Your task to perform on an android device: Go to Android settings Image 0: 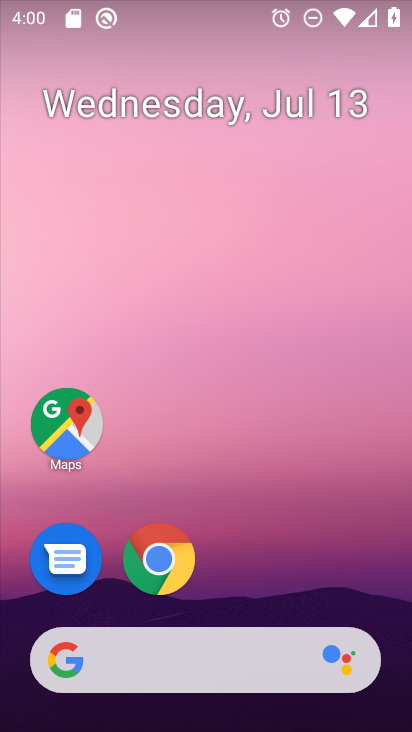
Step 0: drag from (365, 577) to (350, 173)
Your task to perform on an android device: Go to Android settings Image 1: 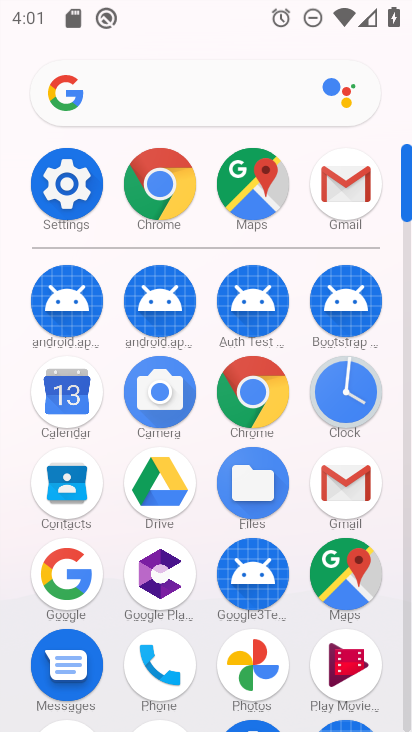
Step 1: click (73, 196)
Your task to perform on an android device: Go to Android settings Image 2: 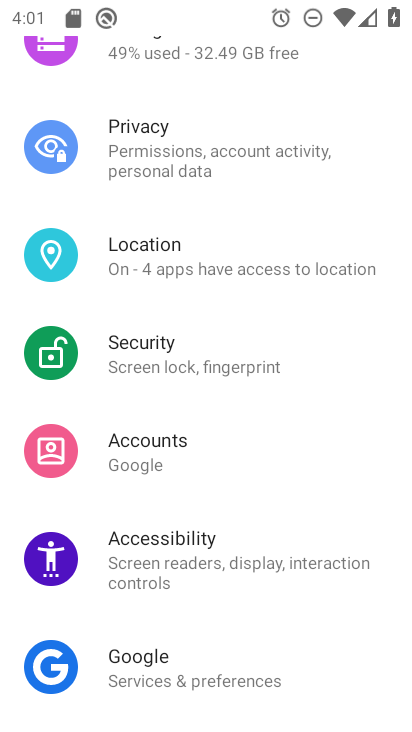
Step 2: drag from (346, 319) to (346, 415)
Your task to perform on an android device: Go to Android settings Image 3: 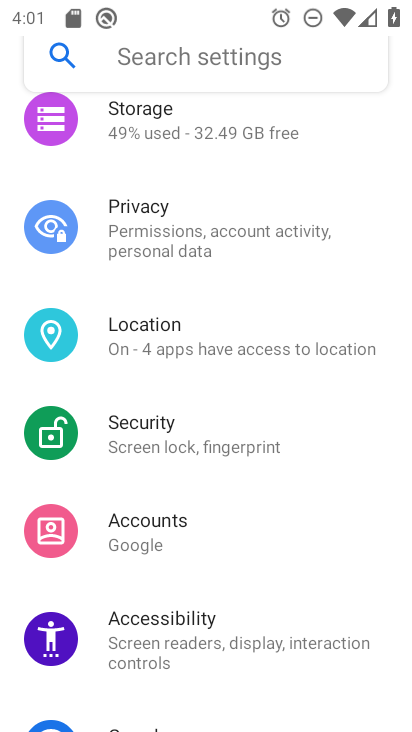
Step 3: drag from (355, 319) to (355, 402)
Your task to perform on an android device: Go to Android settings Image 4: 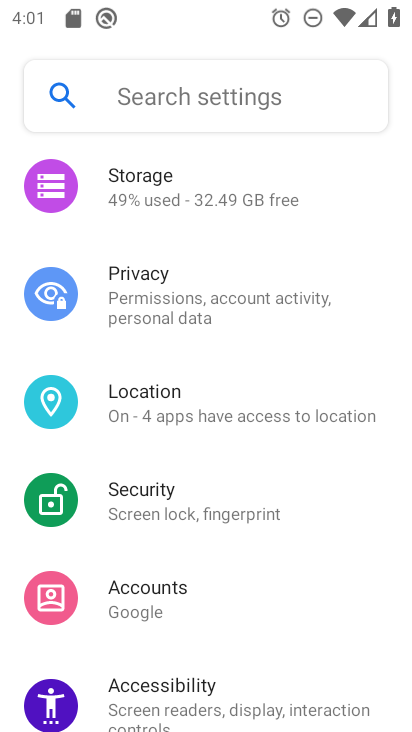
Step 4: drag from (355, 305) to (348, 395)
Your task to perform on an android device: Go to Android settings Image 5: 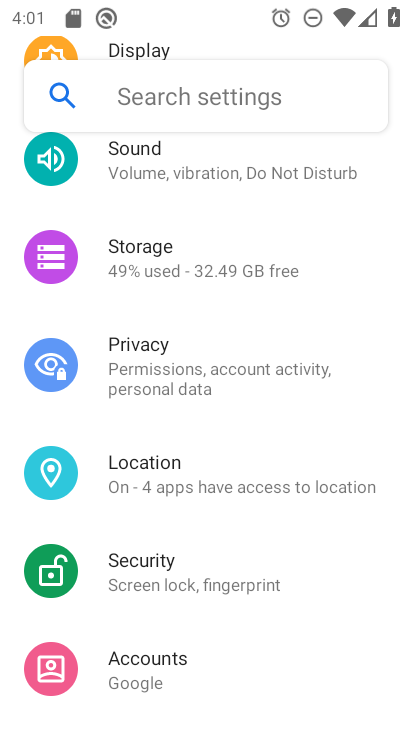
Step 5: drag from (355, 293) to (355, 392)
Your task to perform on an android device: Go to Android settings Image 6: 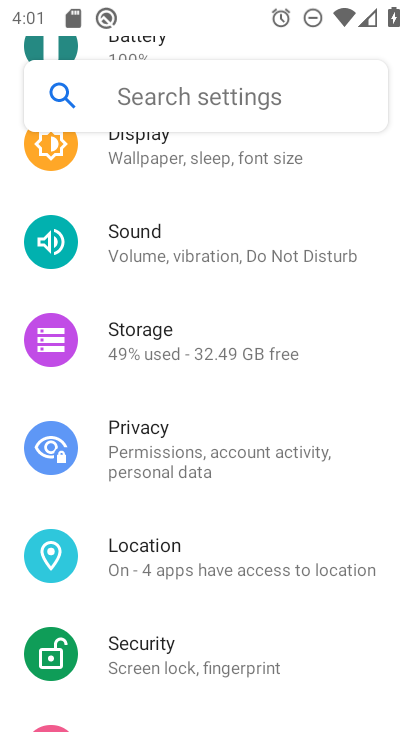
Step 6: drag from (367, 293) to (363, 388)
Your task to perform on an android device: Go to Android settings Image 7: 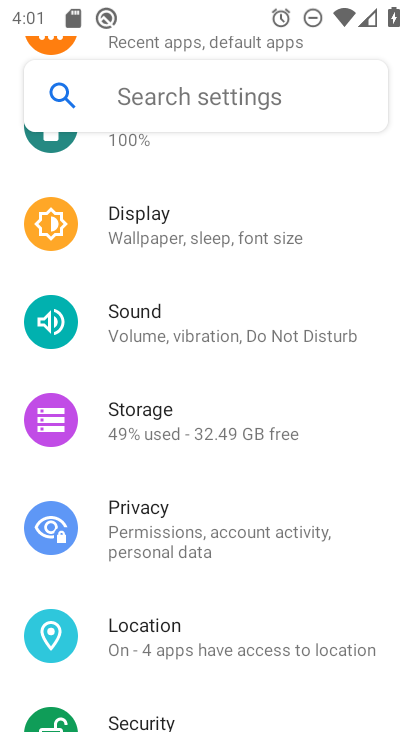
Step 7: drag from (363, 304) to (361, 412)
Your task to perform on an android device: Go to Android settings Image 8: 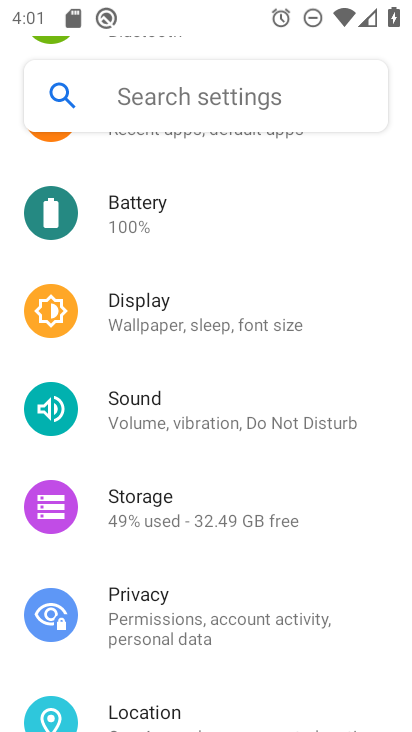
Step 8: drag from (371, 303) to (357, 401)
Your task to perform on an android device: Go to Android settings Image 9: 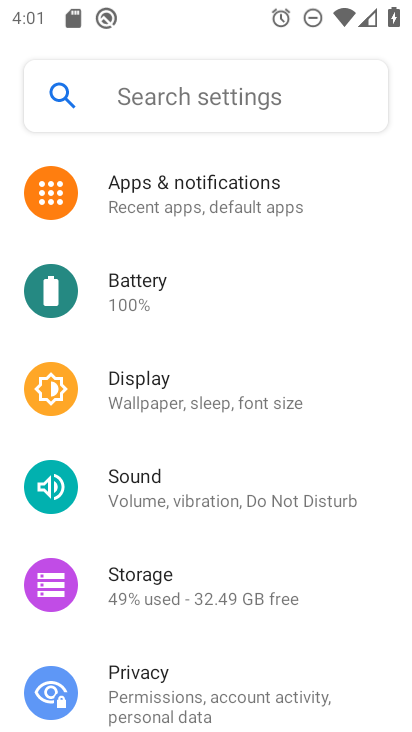
Step 9: drag from (355, 297) to (354, 421)
Your task to perform on an android device: Go to Android settings Image 10: 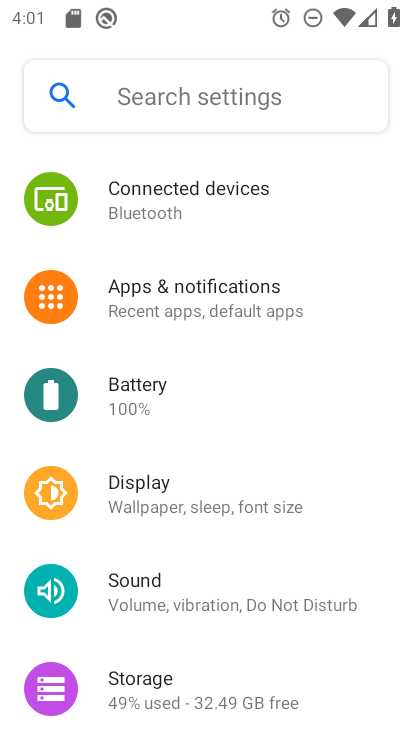
Step 10: drag from (355, 269) to (342, 408)
Your task to perform on an android device: Go to Android settings Image 11: 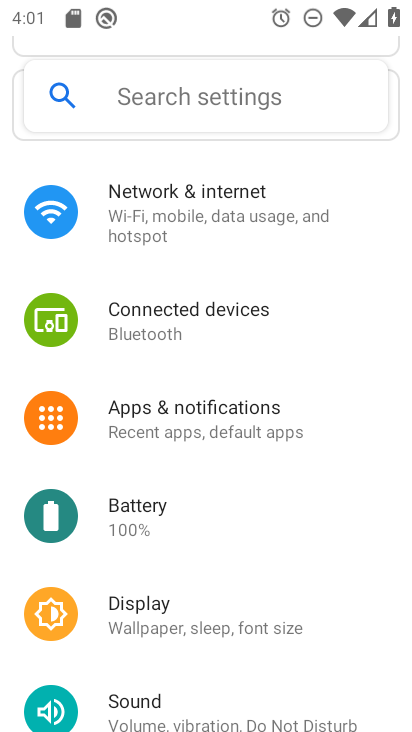
Step 11: drag from (355, 287) to (340, 417)
Your task to perform on an android device: Go to Android settings Image 12: 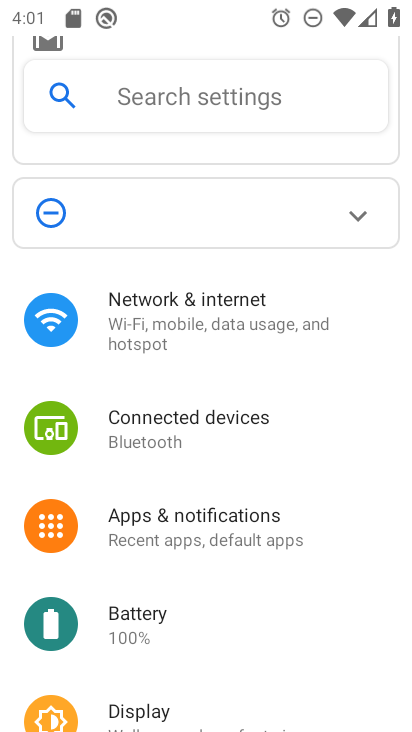
Step 12: drag from (336, 460) to (344, 388)
Your task to perform on an android device: Go to Android settings Image 13: 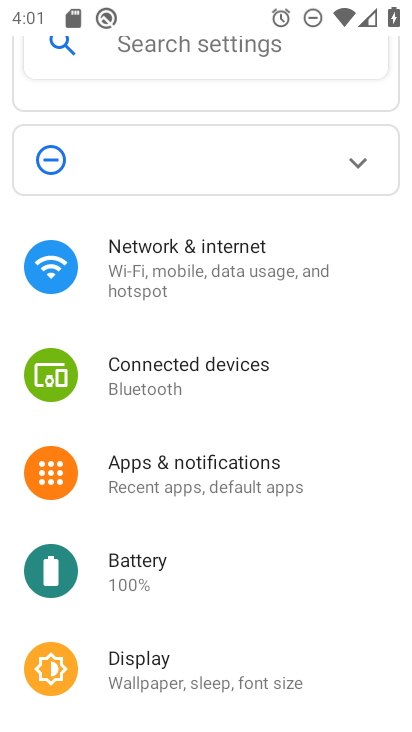
Step 13: drag from (342, 494) to (347, 413)
Your task to perform on an android device: Go to Android settings Image 14: 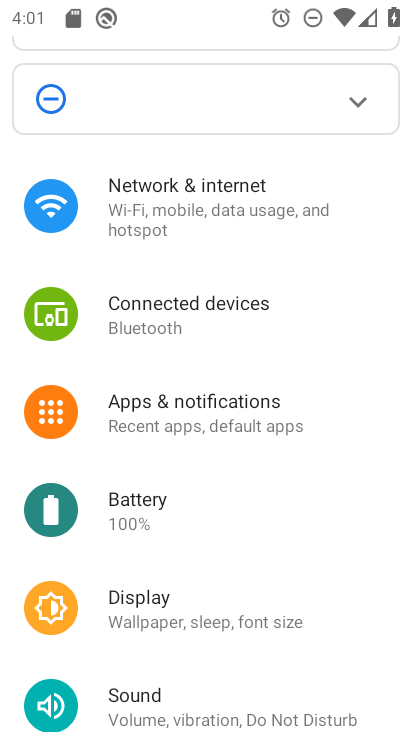
Step 14: drag from (335, 508) to (343, 412)
Your task to perform on an android device: Go to Android settings Image 15: 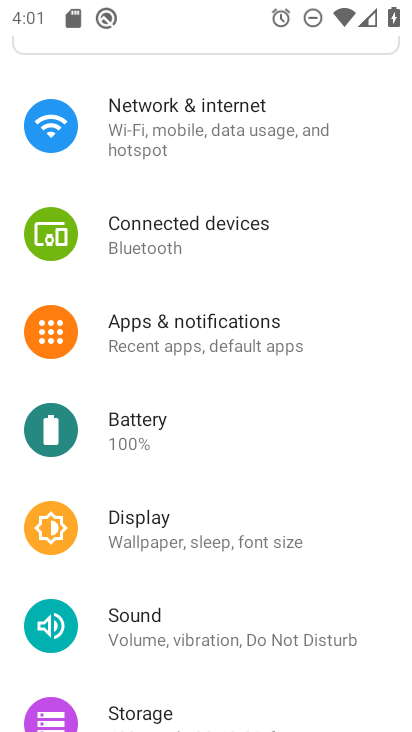
Step 15: drag from (350, 499) to (358, 402)
Your task to perform on an android device: Go to Android settings Image 16: 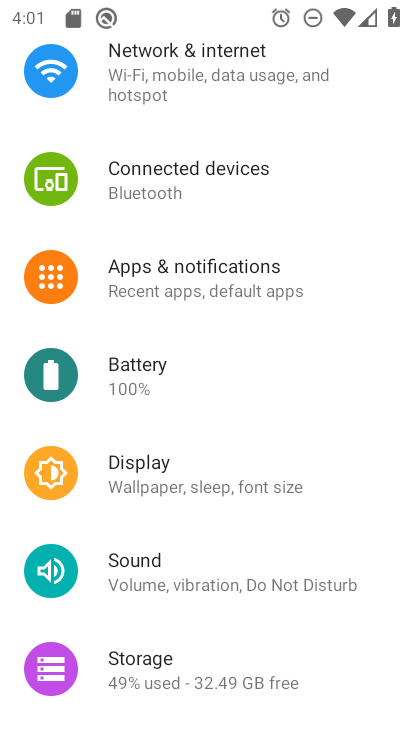
Step 16: drag from (349, 467) to (349, 400)
Your task to perform on an android device: Go to Android settings Image 17: 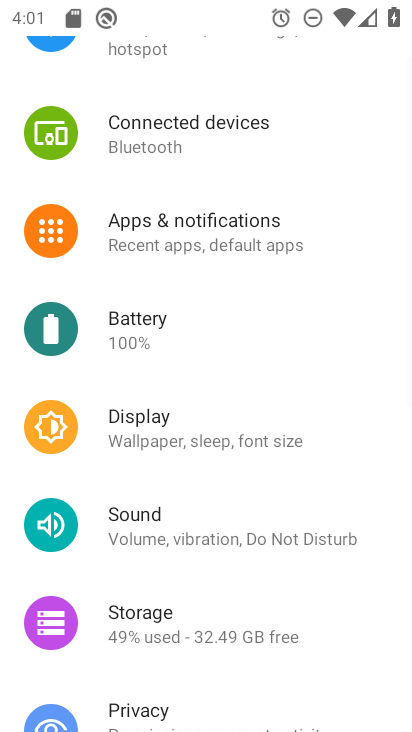
Step 17: drag from (332, 466) to (331, 383)
Your task to perform on an android device: Go to Android settings Image 18: 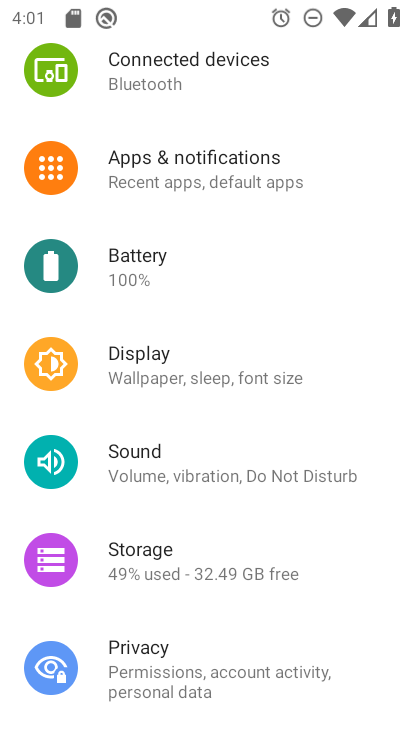
Step 18: drag from (312, 488) to (312, 399)
Your task to perform on an android device: Go to Android settings Image 19: 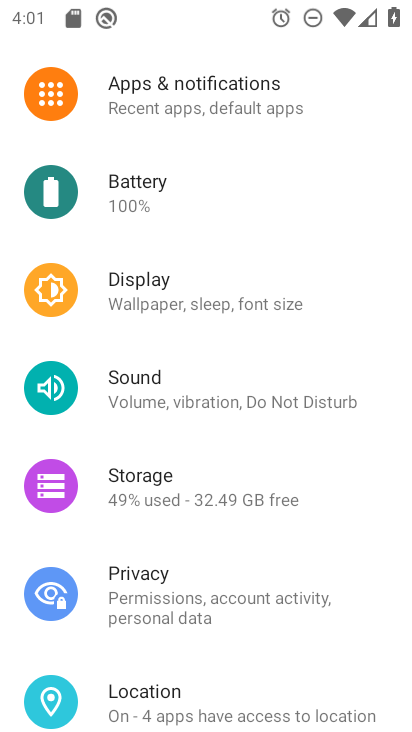
Step 19: drag from (318, 465) to (314, 368)
Your task to perform on an android device: Go to Android settings Image 20: 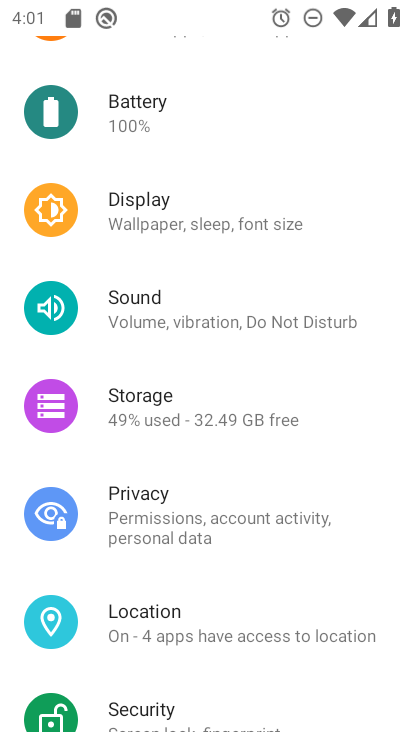
Step 20: drag from (312, 466) to (312, 386)
Your task to perform on an android device: Go to Android settings Image 21: 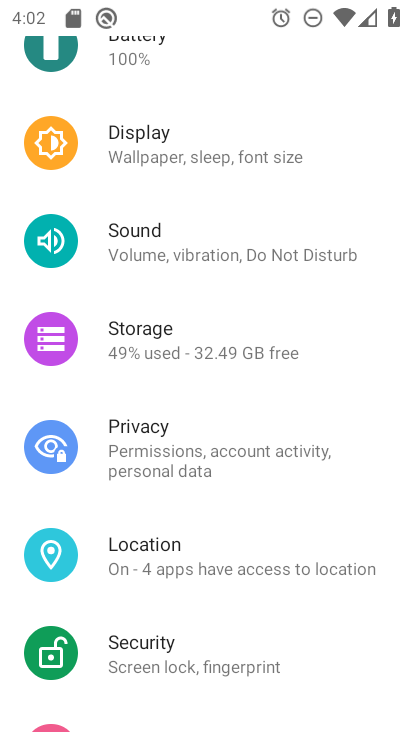
Step 21: drag from (315, 508) to (317, 411)
Your task to perform on an android device: Go to Android settings Image 22: 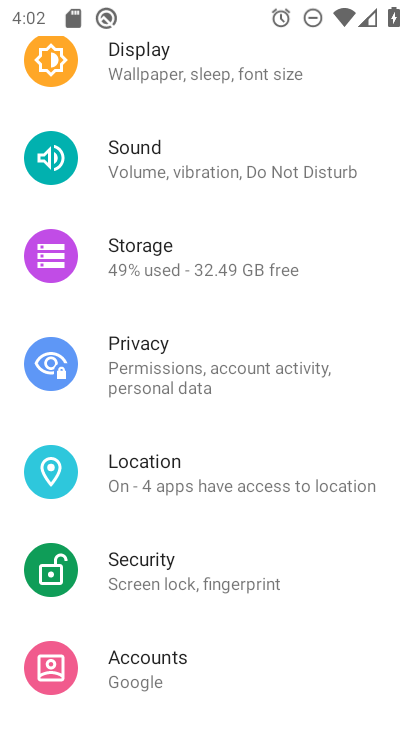
Step 22: drag from (312, 511) to (311, 407)
Your task to perform on an android device: Go to Android settings Image 23: 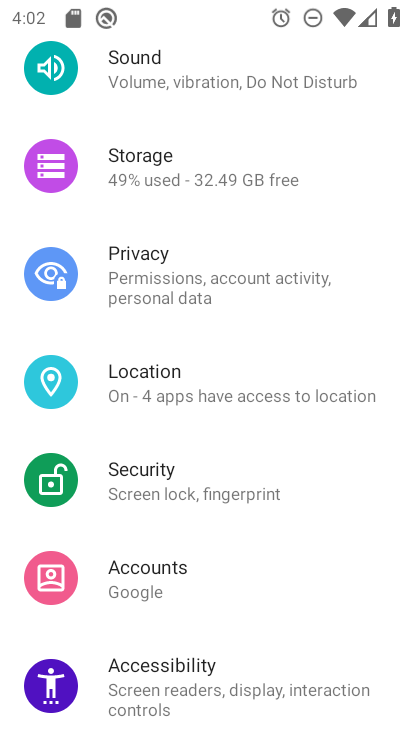
Step 23: drag from (308, 485) to (312, 360)
Your task to perform on an android device: Go to Android settings Image 24: 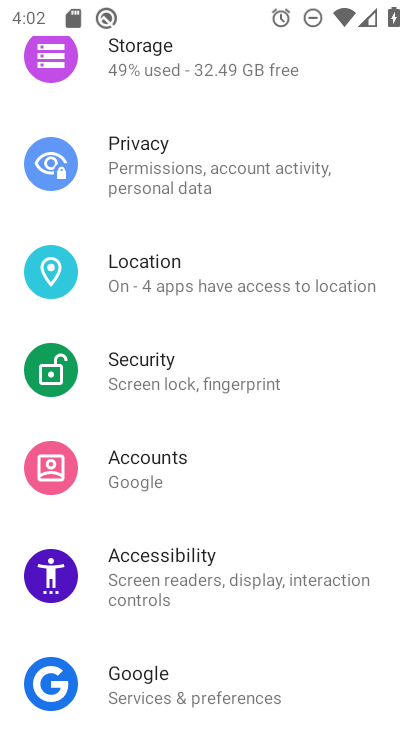
Step 24: drag from (315, 494) to (314, 248)
Your task to perform on an android device: Go to Android settings Image 25: 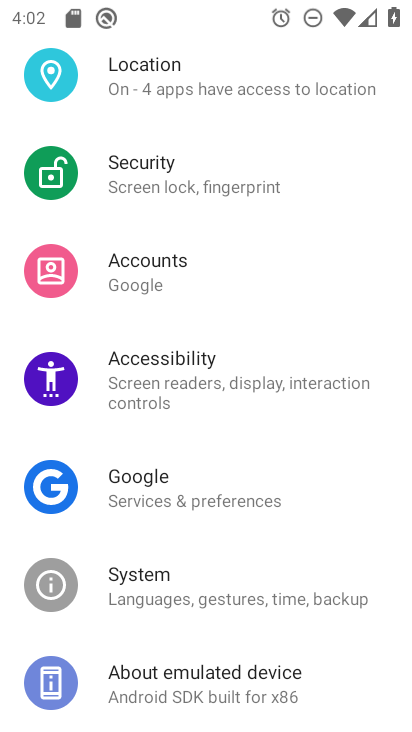
Step 25: click (253, 585)
Your task to perform on an android device: Go to Android settings Image 26: 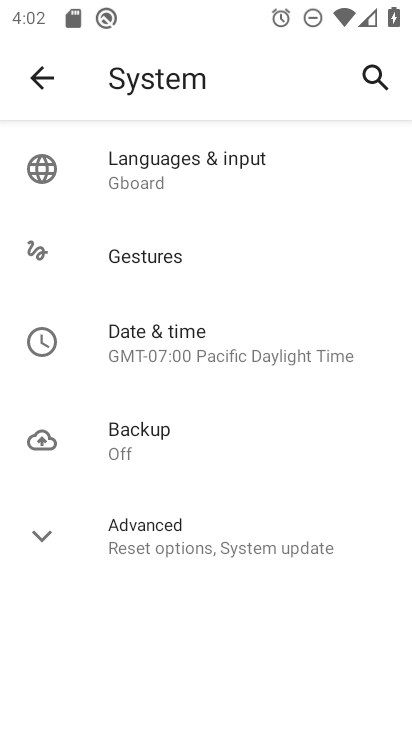
Step 26: click (216, 542)
Your task to perform on an android device: Go to Android settings Image 27: 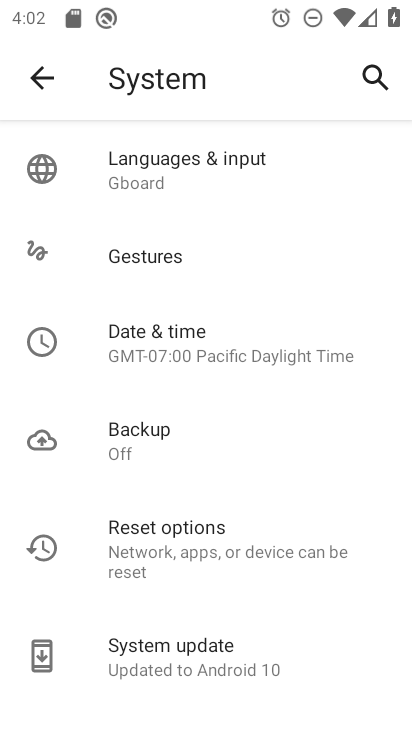
Step 27: task complete